Your task to perform on an android device: search for starred emails in the gmail app Image 0: 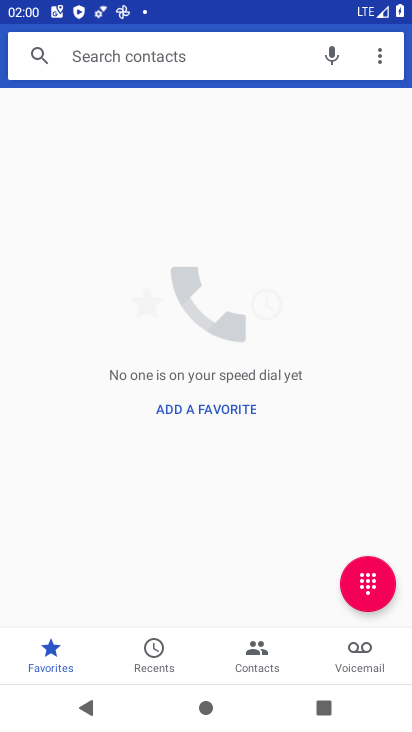
Step 0: press home button
Your task to perform on an android device: search for starred emails in the gmail app Image 1: 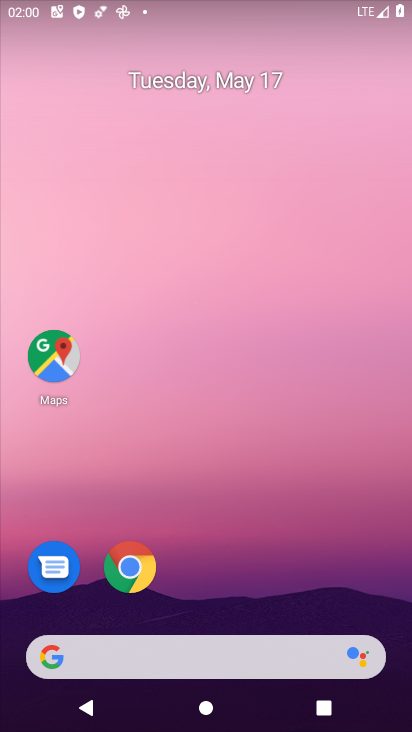
Step 1: drag from (388, 620) to (278, 4)
Your task to perform on an android device: search for starred emails in the gmail app Image 2: 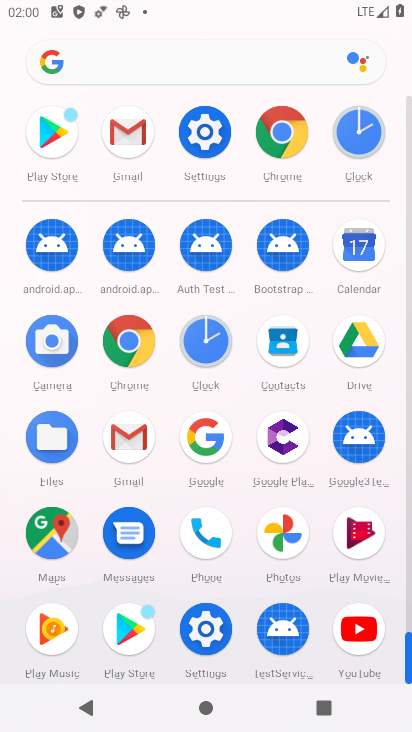
Step 2: click (128, 439)
Your task to perform on an android device: search for starred emails in the gmail app Image 3: 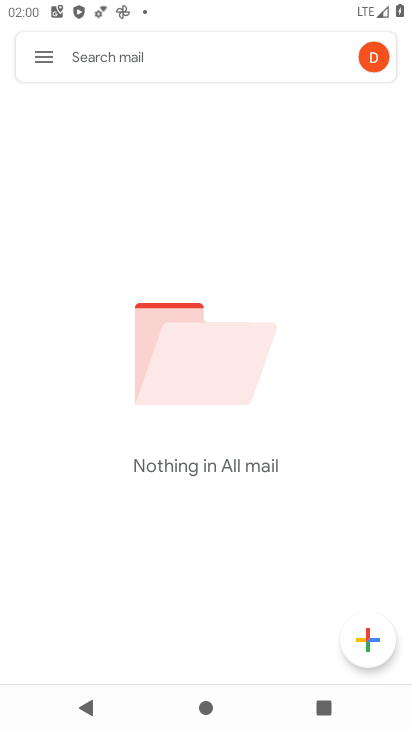
Step 3: click (44, 57)
Your task to perform on an android device: search for starred emails in the gmail app Image 4: 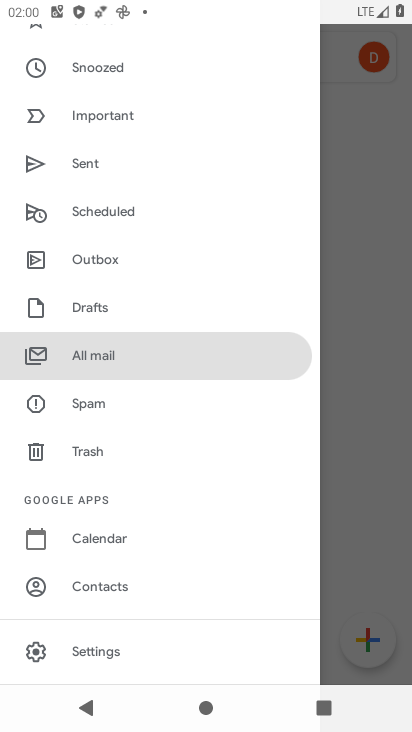
Step 4: drag from (203, 150) to (175, 425)
Your task to perform on an android device: search for starred emails in the gmail app Image 5: 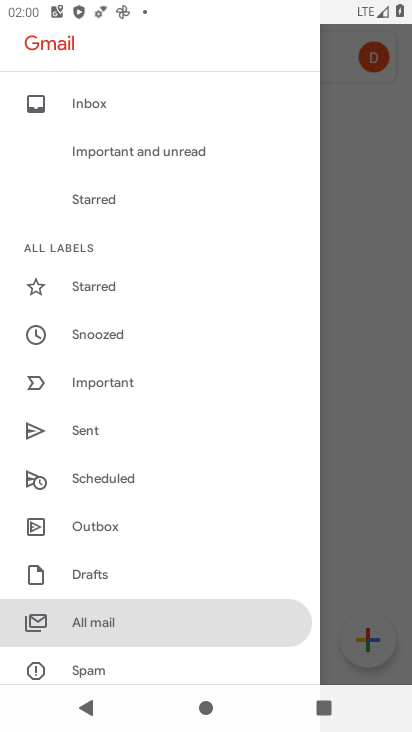
Step 5: click (81, 283)
Your task to perform on an android device: search for starred emails in the gmail app Image 6: 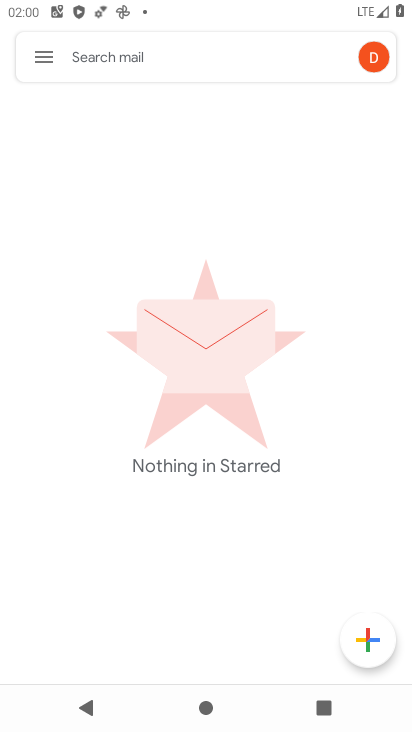
Step 6: task complete